Your task to perform on an android device: turn on the 12-hour format for clock Image 0: 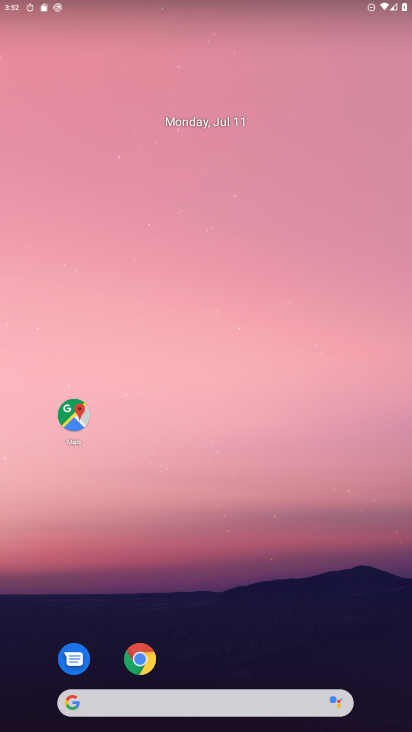
Step 0: drag from (201, 197) to (187, 155)
Your task to perform on an android device: turn on the 12-hour format for clock Image 1: 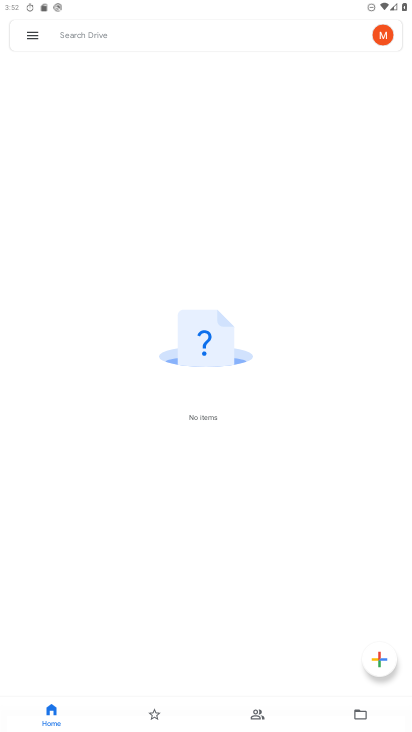
Step 1: press home button
Your task to perform on an android device: turn on the 12-hour format for clock Image 2: 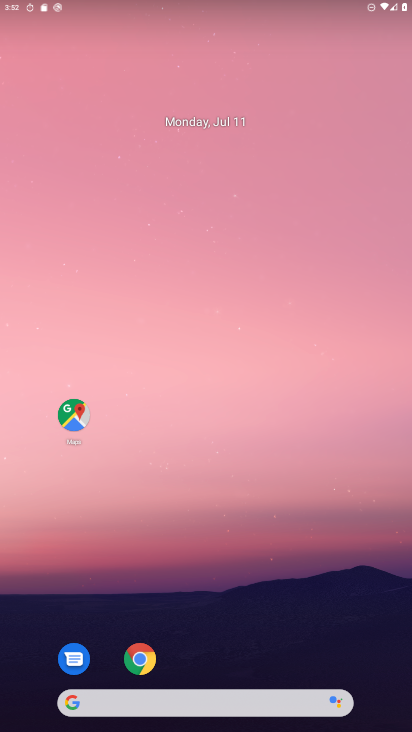
Step 2: drag from (231, 654) to (200, 159)
Your task to perform on an android device: turn on the 12-hour format for clock Image 3: 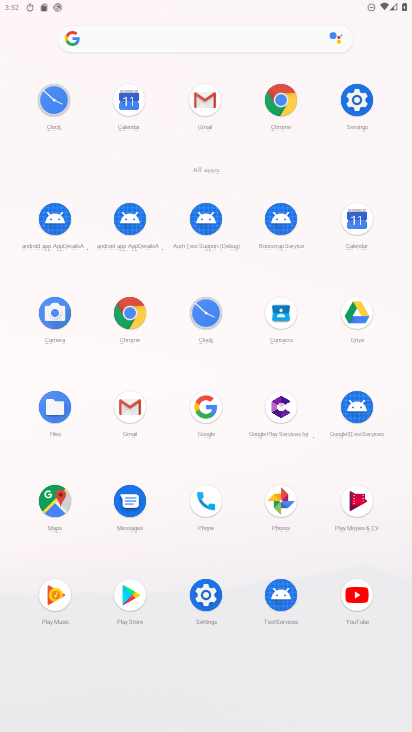
Step 3: click (214, 308)
Your task to perform on an android device: turn on the 12-hour format for clock Image 4: 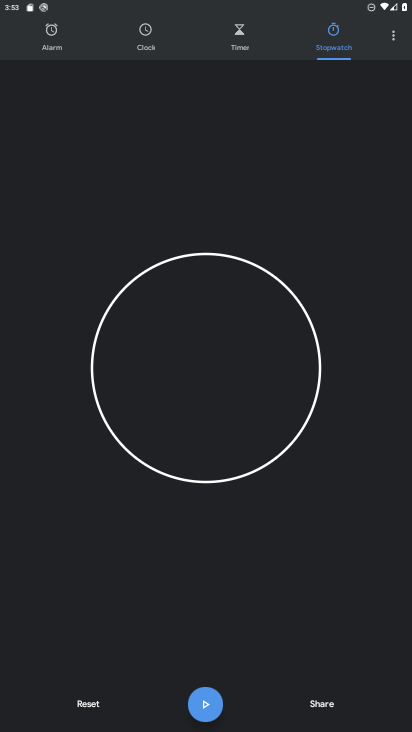
Step 4: click (399, 30)
Your task to perform on an android device: turn on the 12-hour format for clock Image 5: 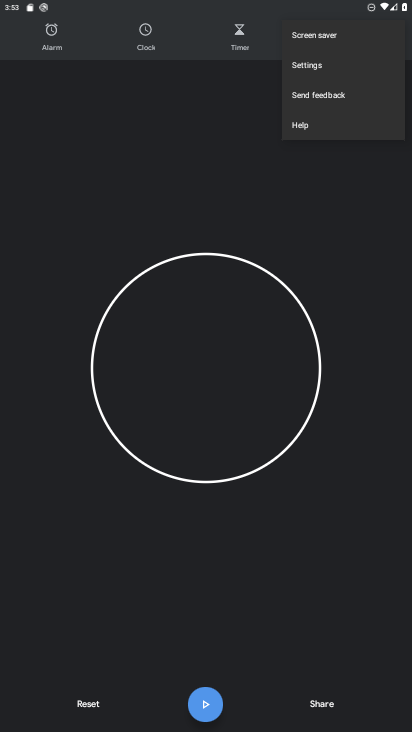
Step 5: click (314, 67)
Your task to perform on an android device: turn on the 12-hour format for clock Image 6: 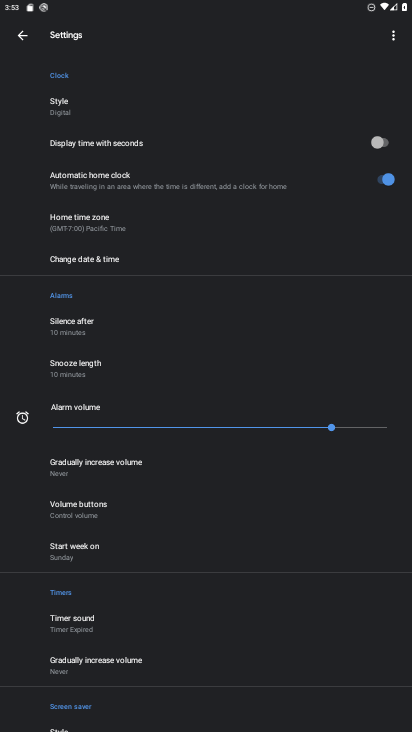
Step 6: click (116, 251)
Your task to perform on an android device: turn on the 12-hour format for clock Image 7: 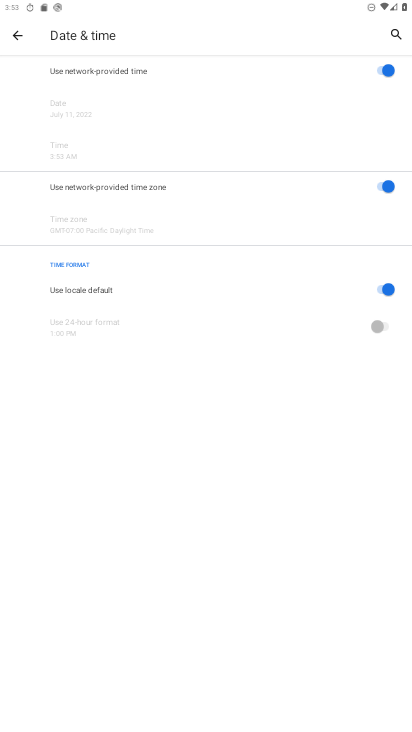
Step 7: click (370, 188)
Your task to perform on an android device: turn on the 12-hour format for clock Image 8: 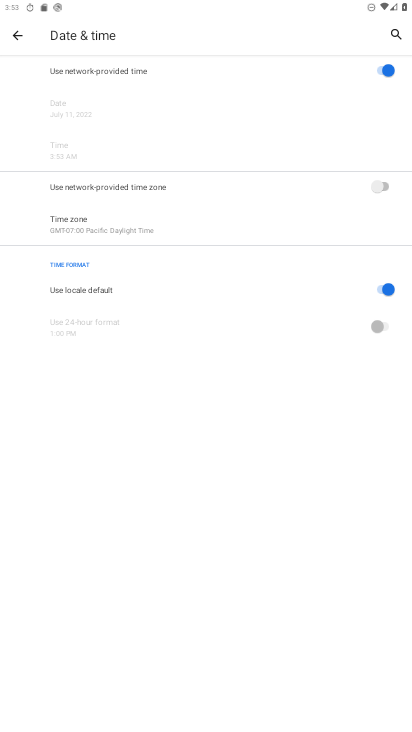
Step 8: click (76, 220)
Your task to perform on an android device: turn on the 12-hour format for clock Image 9: 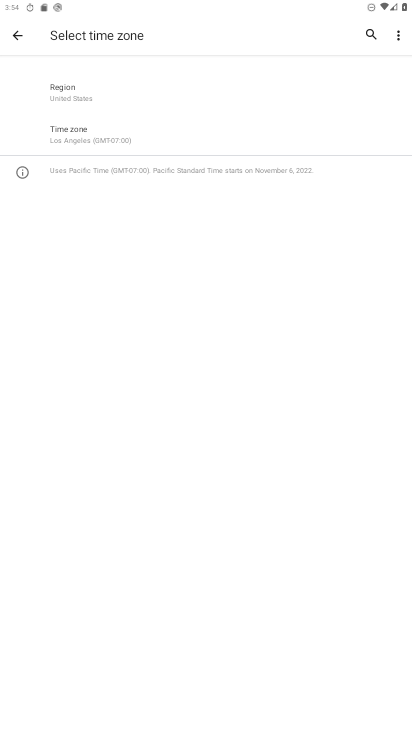
Step 9: task complete